Your task to perform on an android device: change alarm snooze length Image 0: 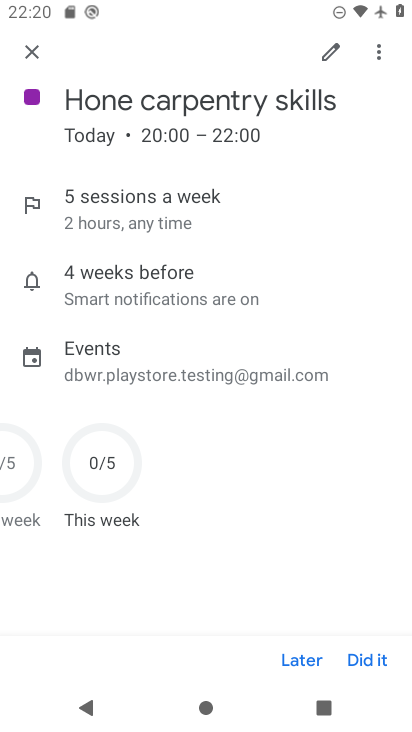
Step 0: press home button
Your task to perform on an android device: change alarm snooze length Image 1: 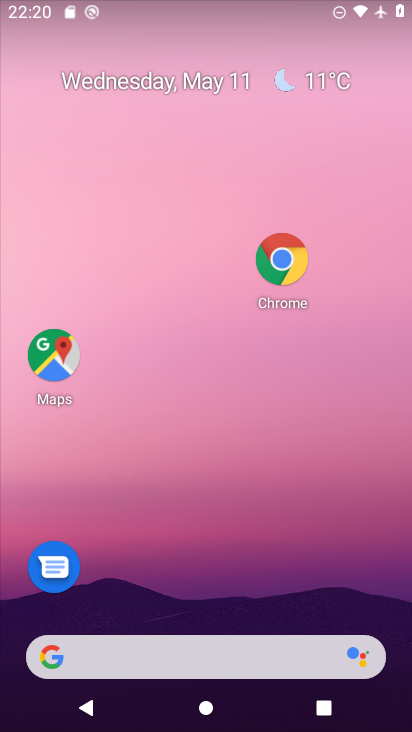
Step 1: drag from (115, 654) to (219, 199)
Your task to perform on an android device: change alarm snooze length Image 2: 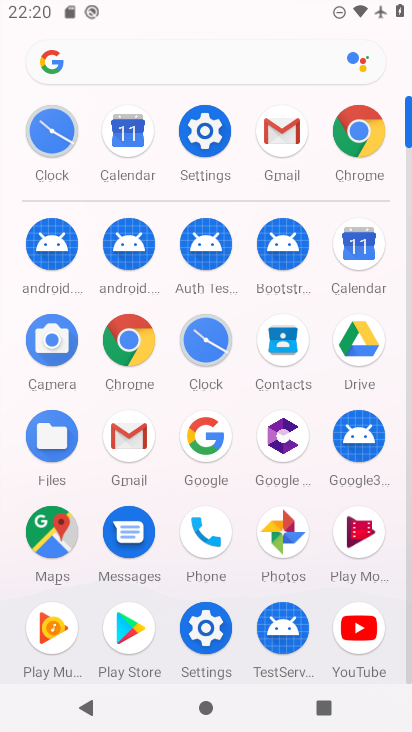
Step 2: click (50, 142)
Your task to perform on an android device: change alarm snooze length Image 3: 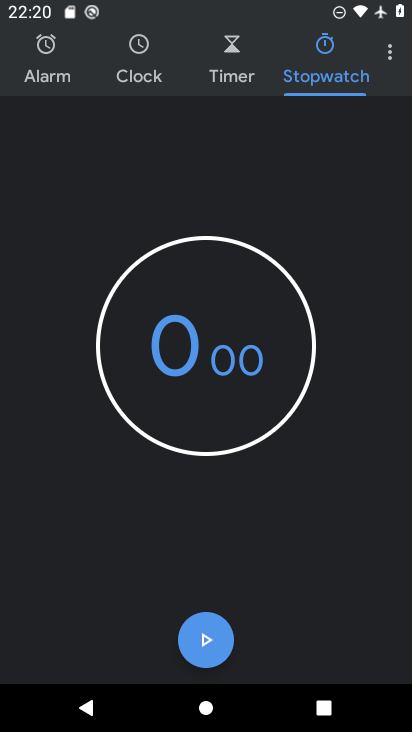
Step 3: click (390, 46)
Your task to perform on an android device: change alarm snooze length Image 4: 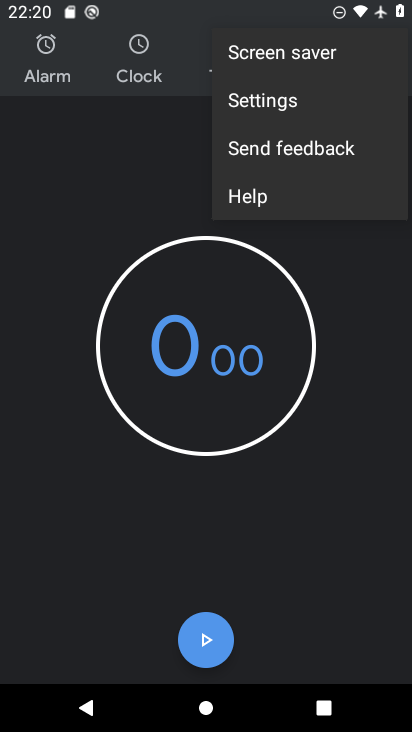
Step 4: click (272, 103)
Your task to perform on an android device: change alarm snooze length Image 5: 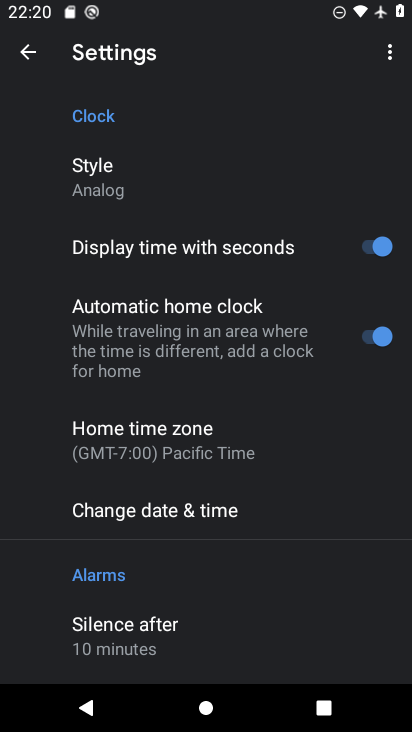
Step 5: drag from (222, 595) to (305, 133)
Your task to perform on an android device: change alarm snooze length Image 6: 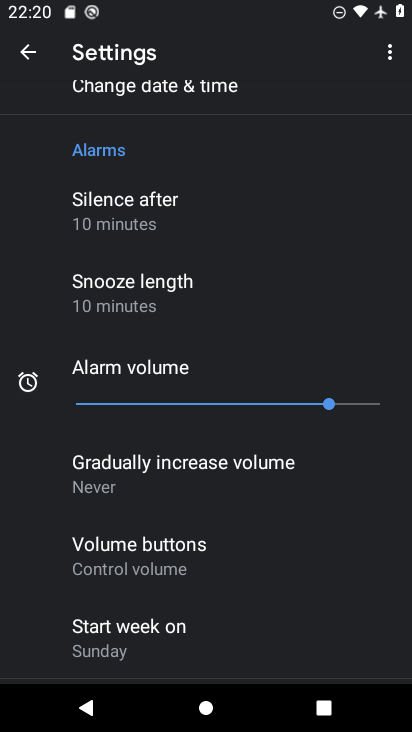
Step 6: click (163, 296)
Your task to perform on an android device: change alarm snooze length Image 7: 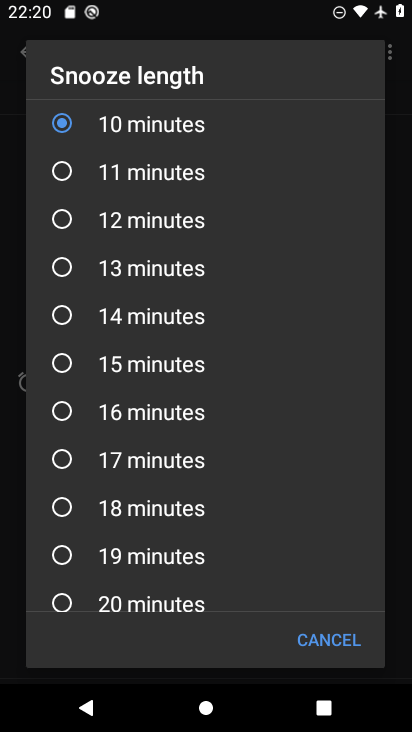
Step 7: click (58, 368)
Your task to perform on an android device: change alarm snooze length Image 8: 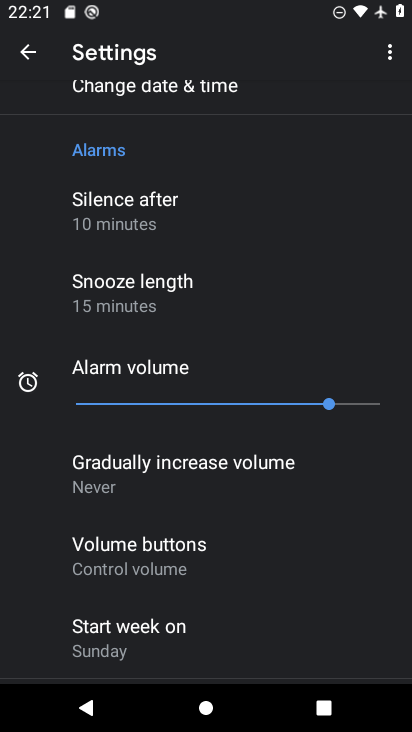
Step 8: task complete